Your task to perform on an android device: Empty the shopping cart on bestbuy. Image 0: 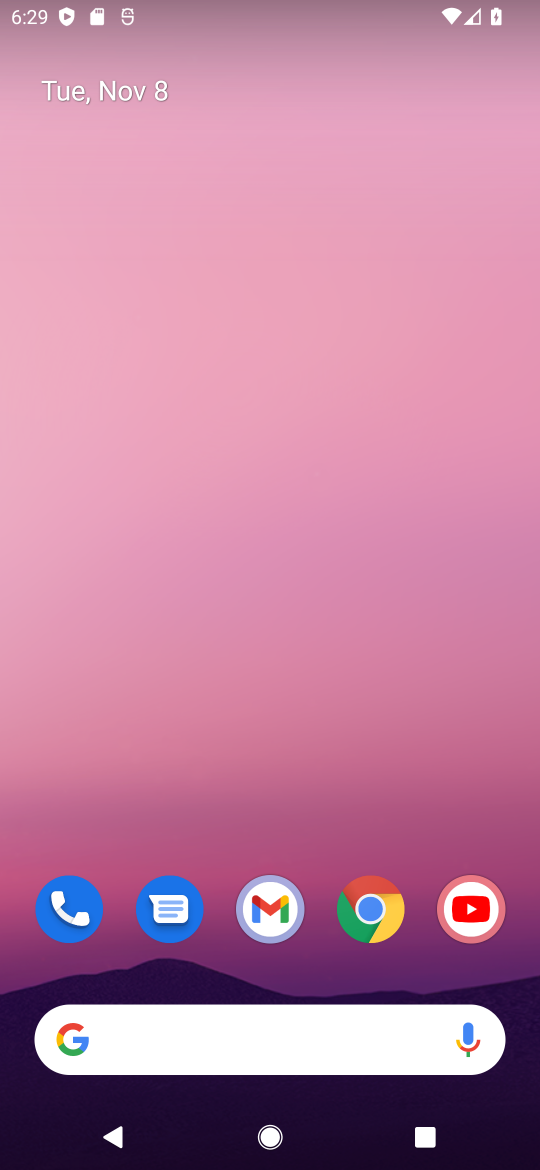
Step 0: click (376, 913)
Your task to perform on an android device: Empty the shopping cart on bestbuy. Image 1: 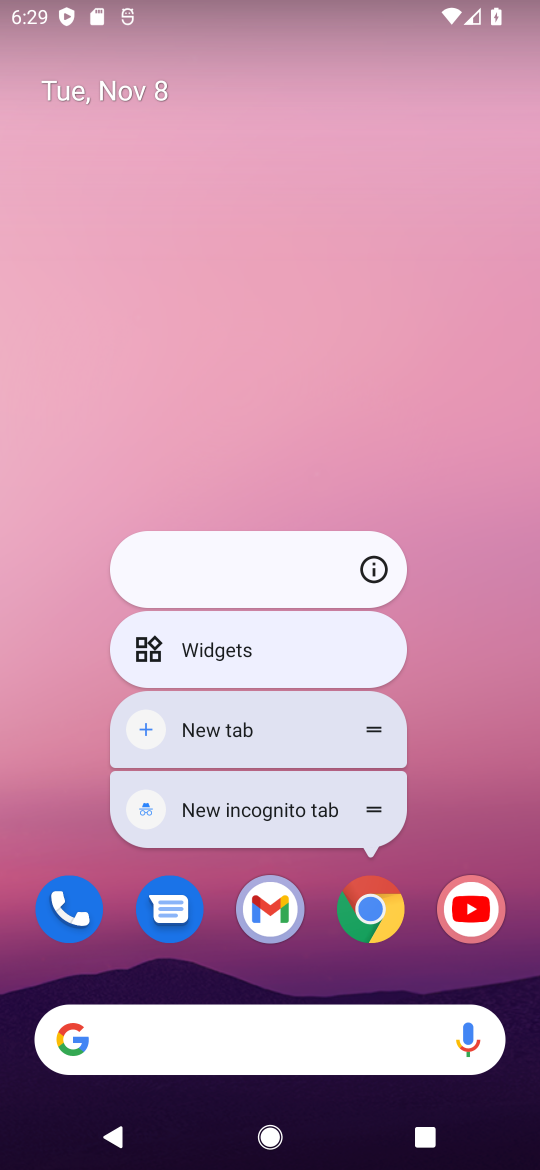
Step 1: click (371, 914)
Your task to perform on an android device: Empty the shopping cart on bestbuy. Image 2: 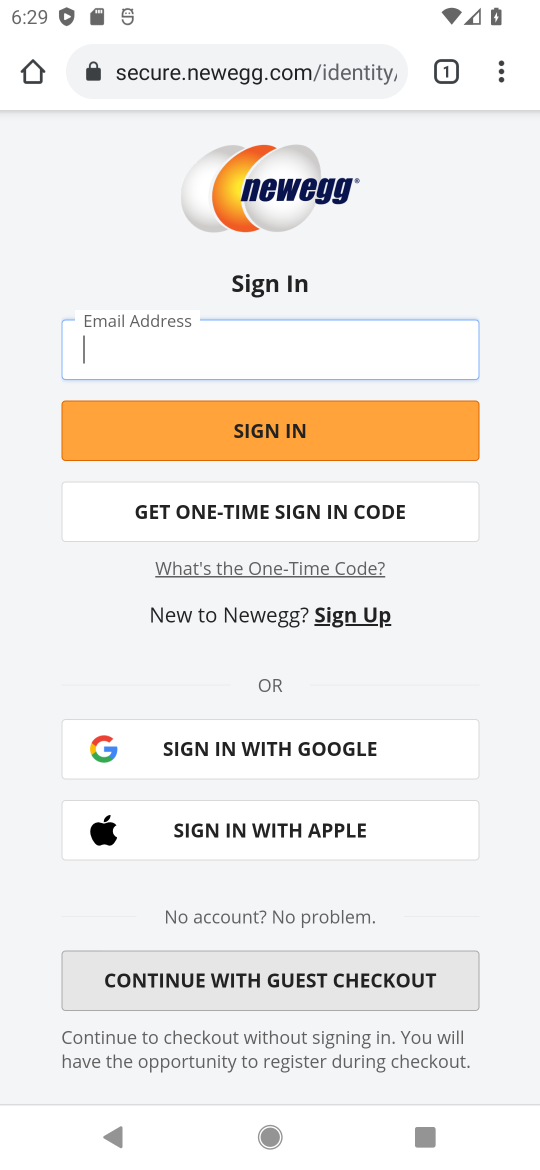
Step 2: click (350, 64)
Your task to perform on an android device: Empty the shopping cart on bestbuy. Image 3: 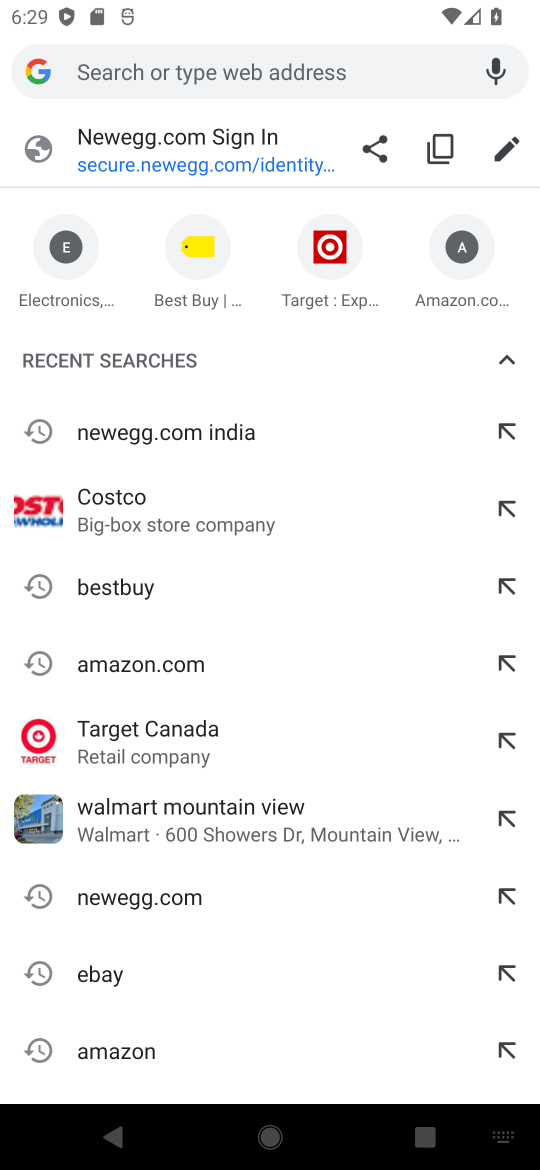
Step 3: click (112, 581)
Your task to perform on an android device: Empty the shopping cart on bestbuy. Image 4: 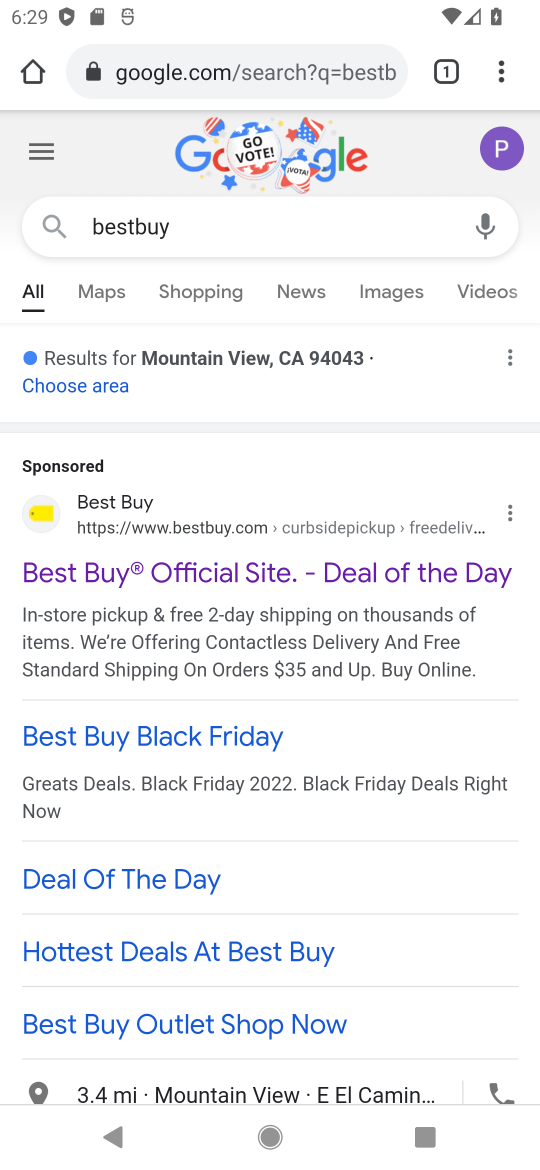
Step 4: click (284, 561)
Your task to perform on an android device: Empty the shopping cart on bestbuy. Image 5: 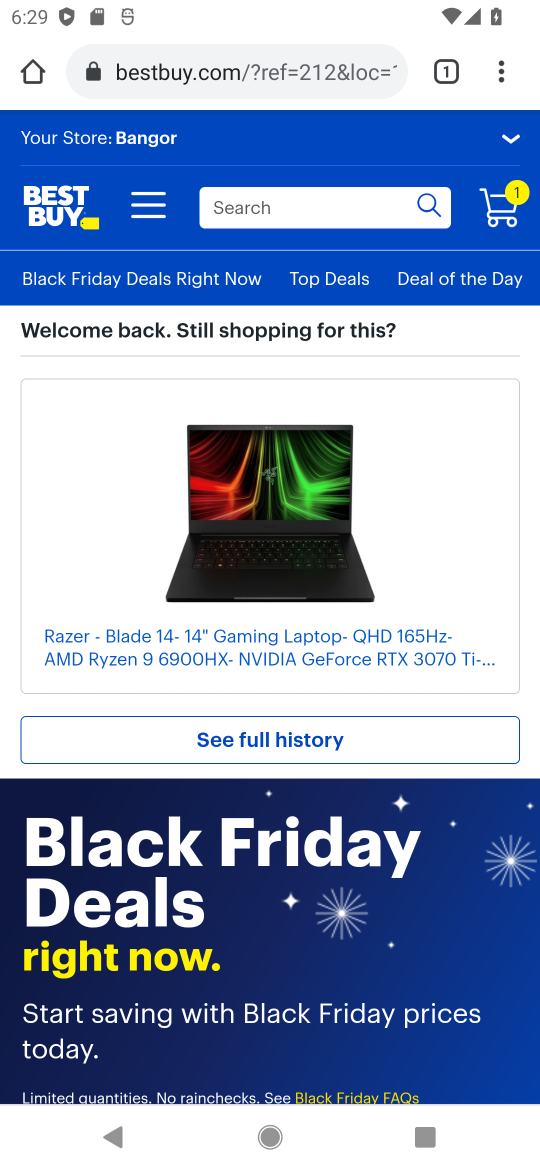
Step 5: click (505, 215)
Your task to perform on an android device: Empty the shopping cart on bestbuy. Image 6: 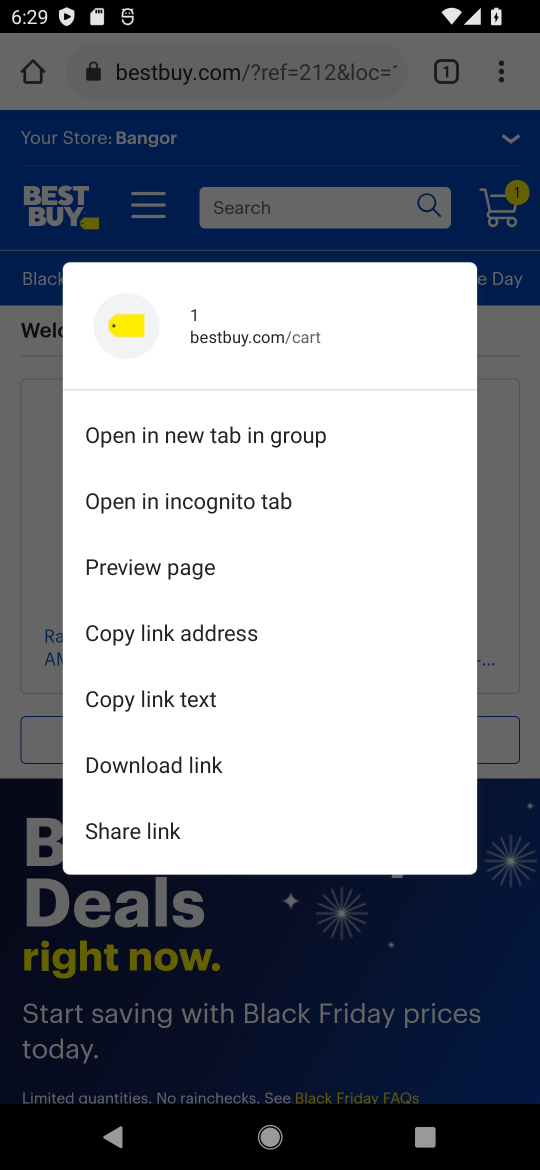
Step 6: click (507, 199)
Your task to perform on an android device: Empty the shopping cart on bestbuy. Image 7: 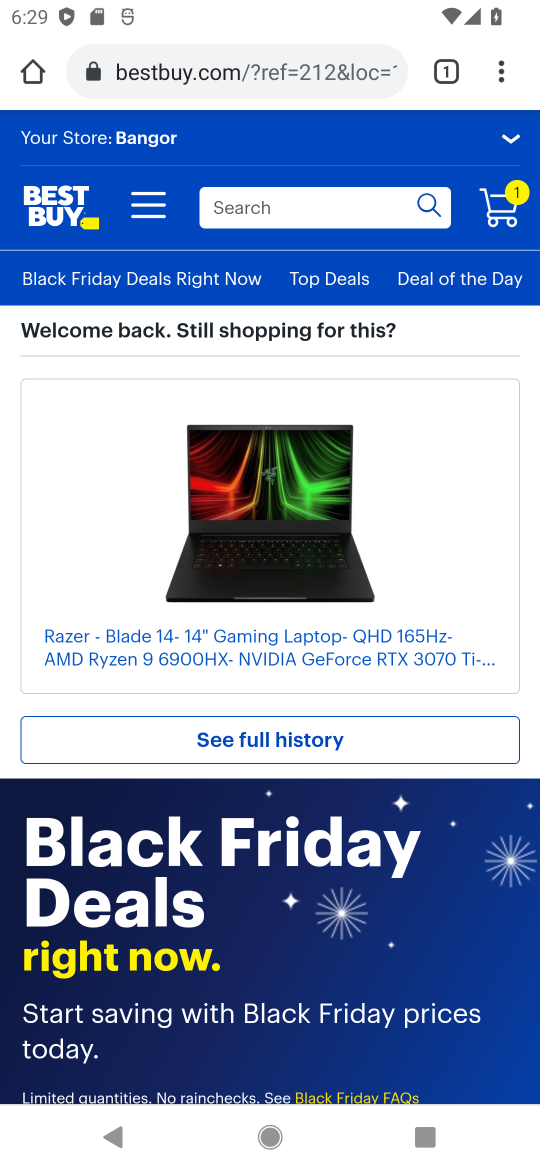
Step 7: click (496, 198)
Your task to perform on an android device: Empty the shopping cart on bestbuy. Image 8: 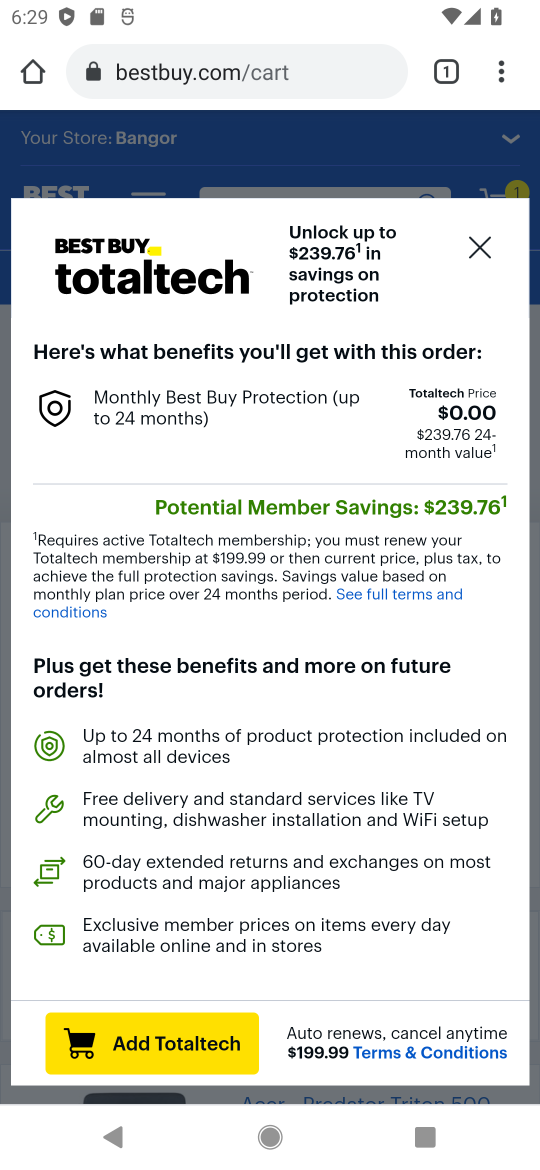
Step 8: click (481, 235)
Your task to perform on an android device: Empty the shopping cart on bestbuy. Image 9: 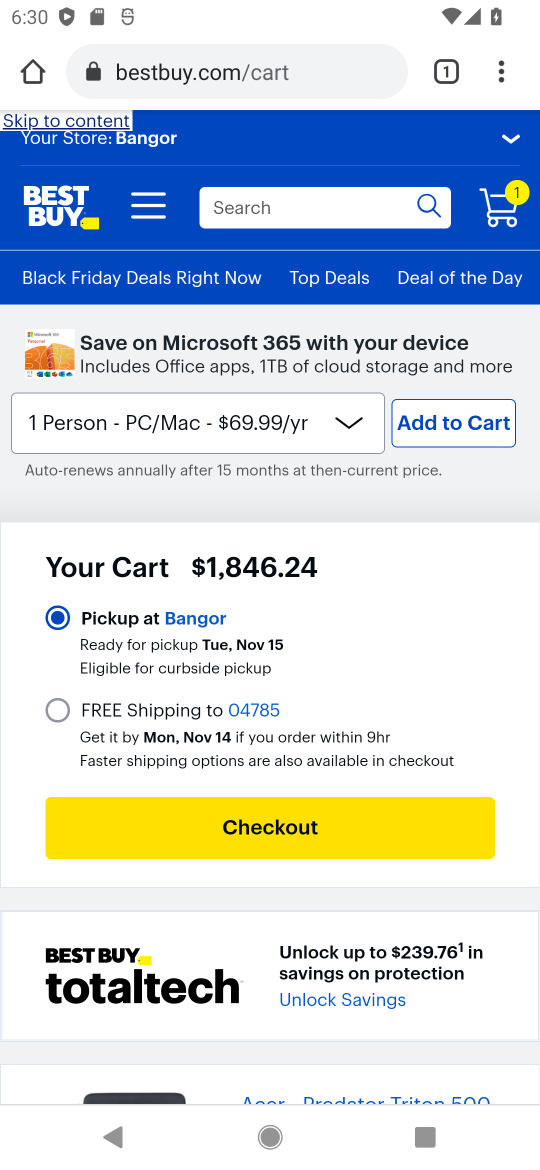
Step 9: drag from (232, 699) to (456, 274)
Your task to perform on an android device: Empty the shopping cart on bestbuy. Image 10: 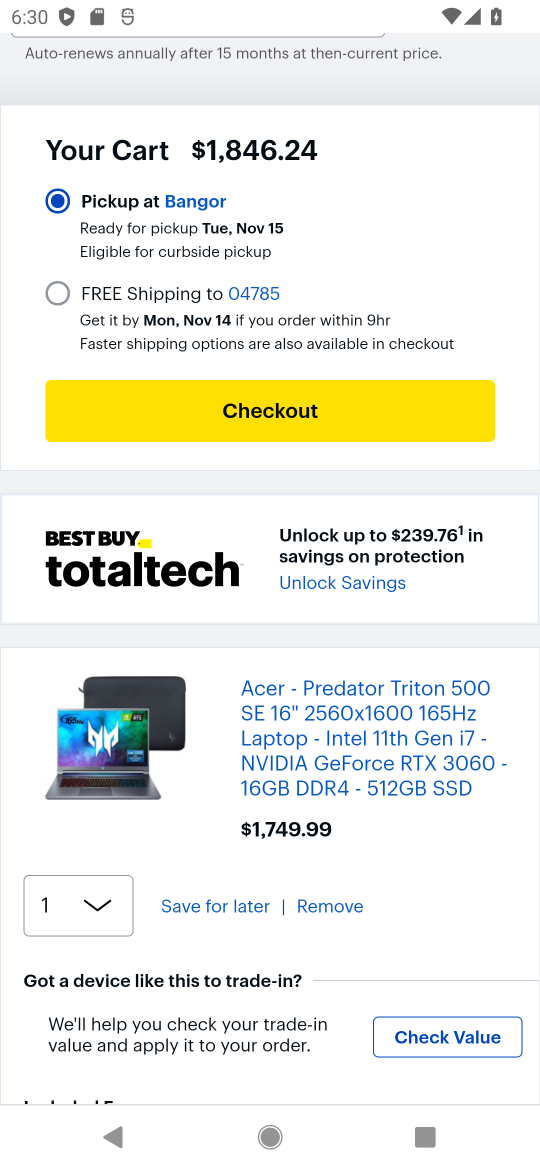
Step 10: click (326, 900)
Your task to perform on an android device: Empty the shopping cart on bestbuy. Image 11: 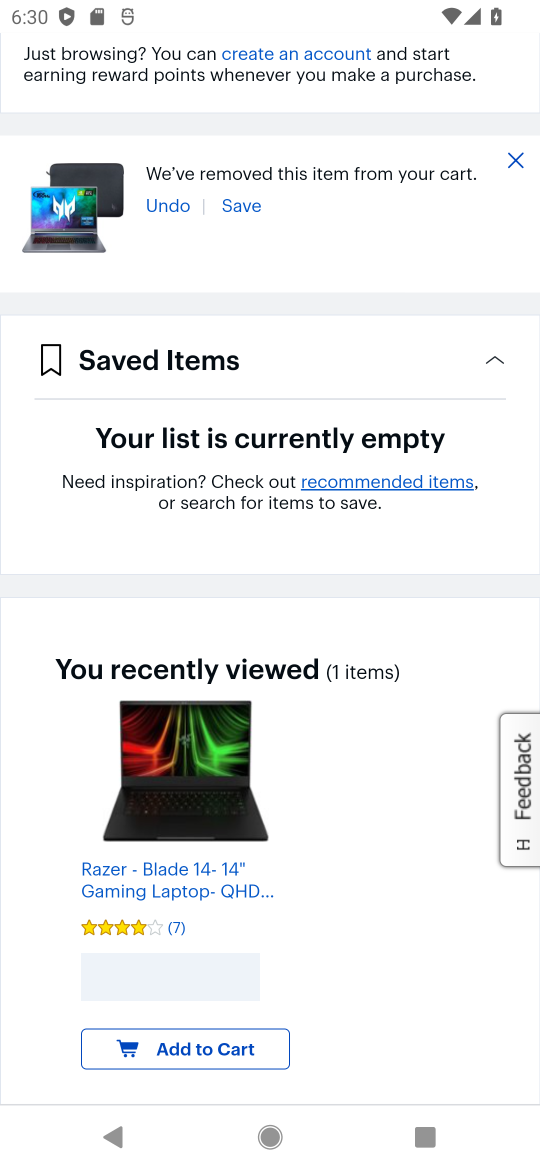
Step 11: task complete